Your task to perform on an android device: turn off translation in the chrome app Image 0: 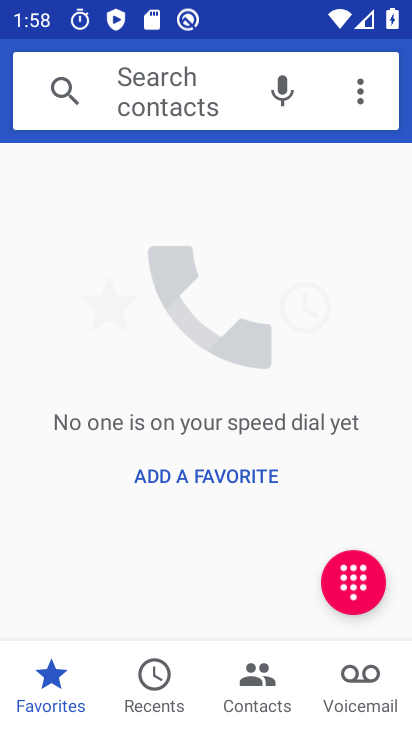
Step 0: press home button
Your task to perform on an android device: turn off translation in the chrome app Image 1: 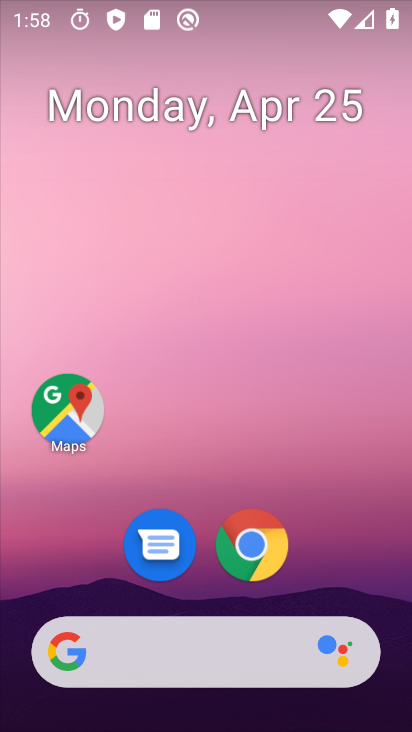
Step 1: drag from (299, 437) to (297, 114)
Your task to perform on an android device: turn off translation in the chrome app Image 2: 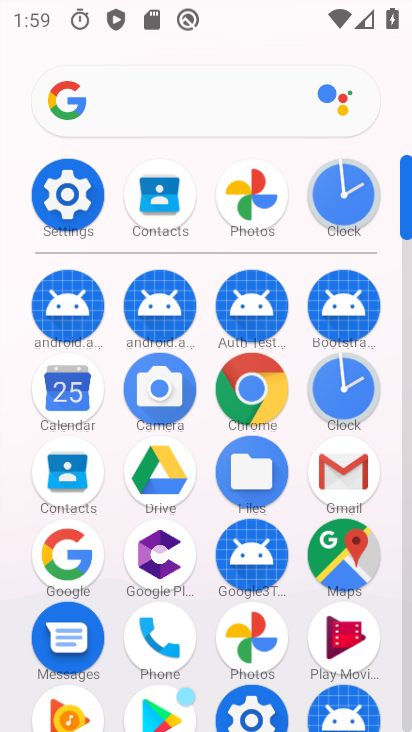
Step 2: click (262, 407)
Your task to perform on an android device: turn off translation in the chrome app Image 3: 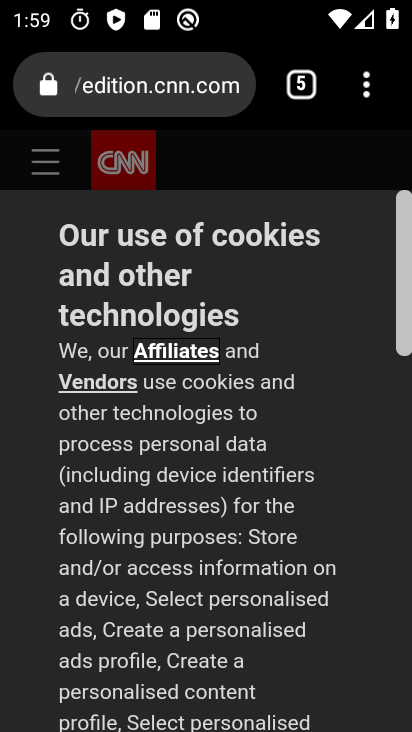
Step 3: click (368, 99)
Your task to perform on an android device: turn off translation in the chrome app Image 4: 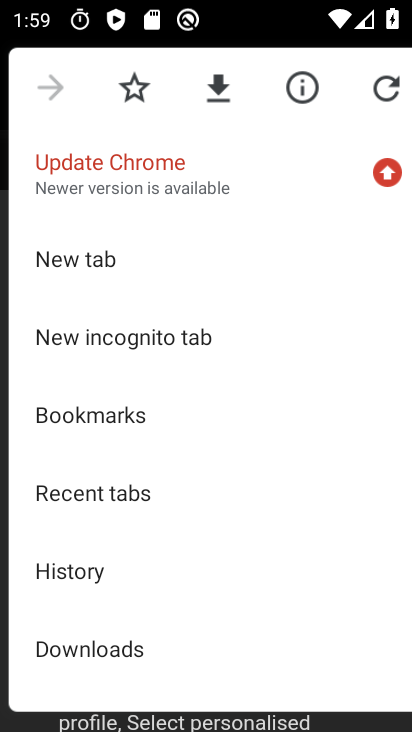
Step 4: drag from (199, 597) to (199, 237)
Your task to perform on an android device: turn off translation in the chrome app Image 5: 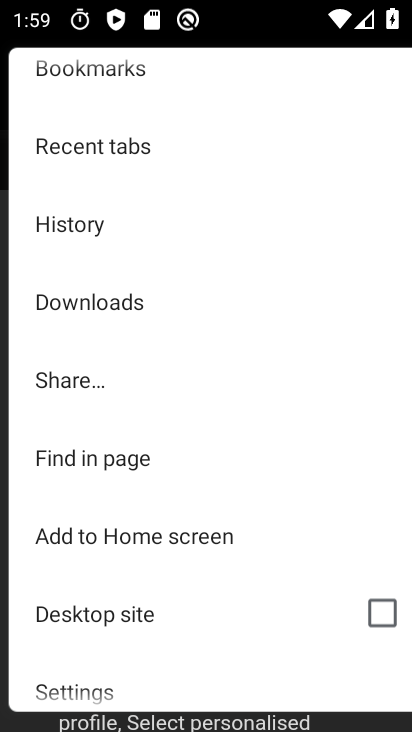
Step 5: click (96, 681)
Your task to perform on an android device: turn off translation in the chrome app Image 6: 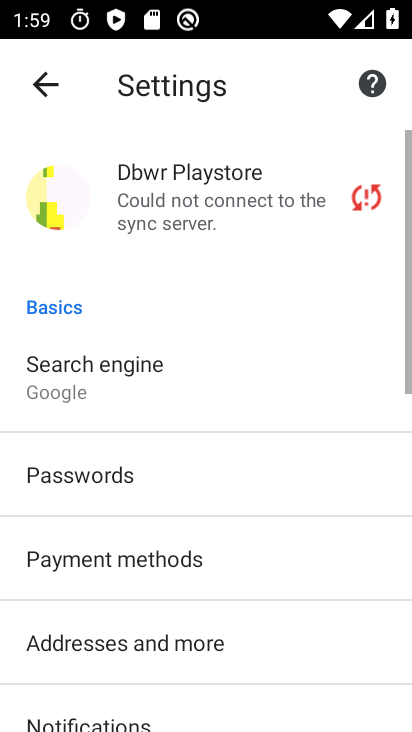
Step 6: drag from (163, 523) to (198, 172)
Your task to perform on an android device: turn off translation in the chrome app Image 7: 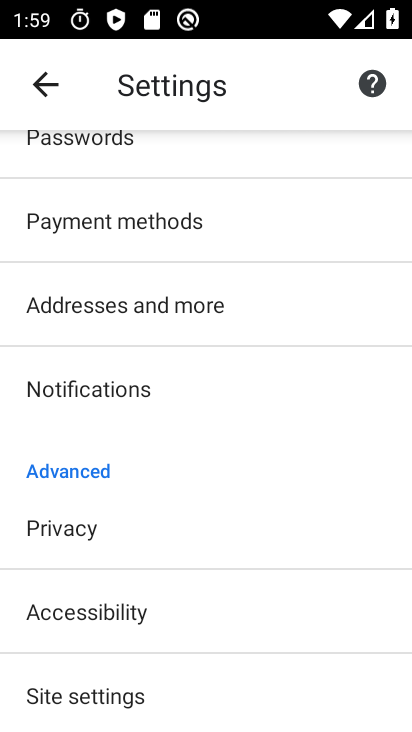
Step 7: drag from (194, 646) to (209, 247)
Your task to perform on an android device: turn off translation in the chrome app Image 8: 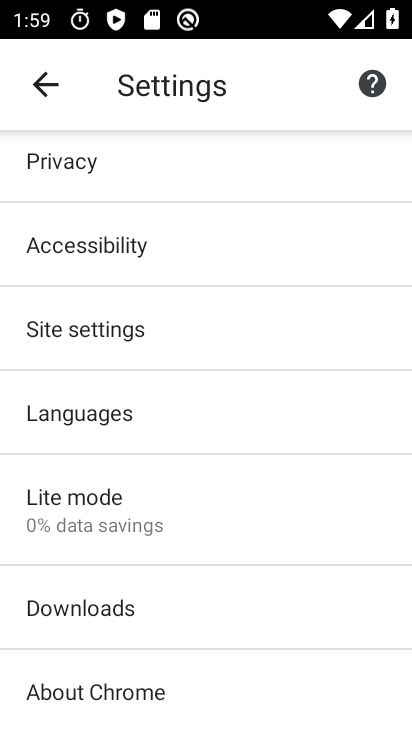
Step 8: click (149, 425)
Your task to perform on an android device: turn off translation in the chrome app Image 9: 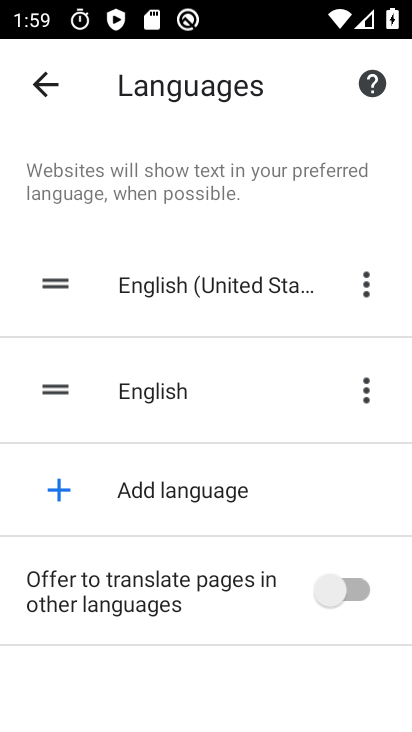
Step 9: task complete